Your task to perform on an android device: turn smart compose on in the gmail app Image 0: 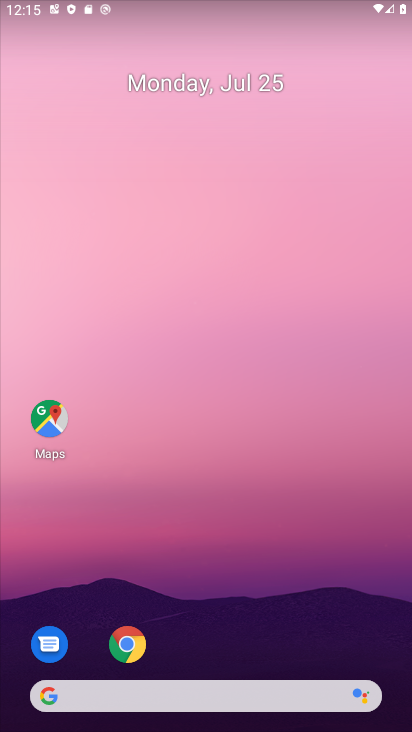
Step 0: drag from (310, 602) to (99, 13)
Your task to perform on an android device: turn smart compose on in the gmail app Image 1: 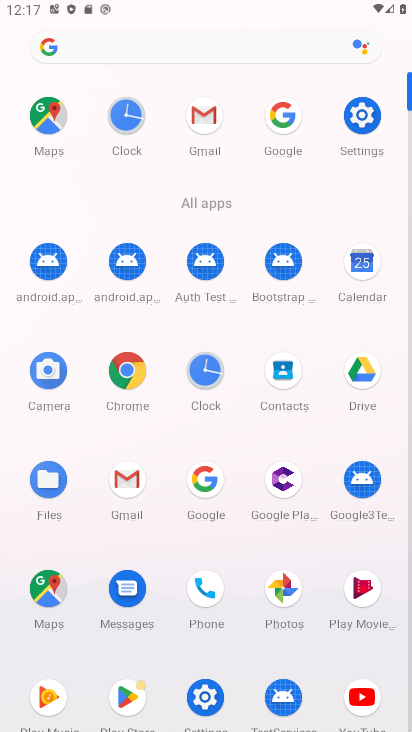
Step 1: click (127, 486)
Your task to perform on an android device: turn smart compose on in the gmail app Image 2: 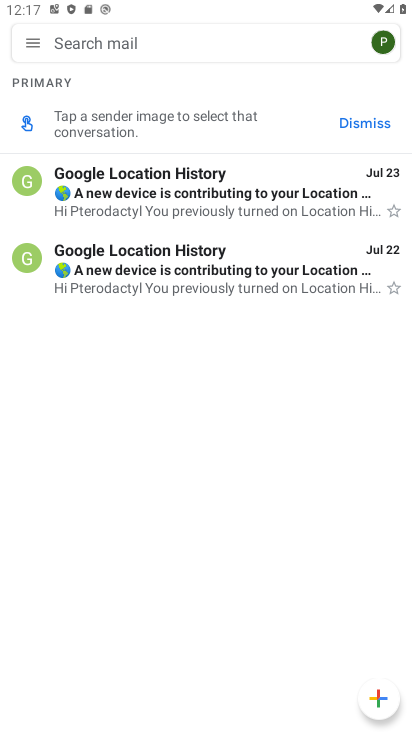
Step 2: click (19, 50)
Your task to perform on an android device: turn smart compose on in the gmail app Image 3: 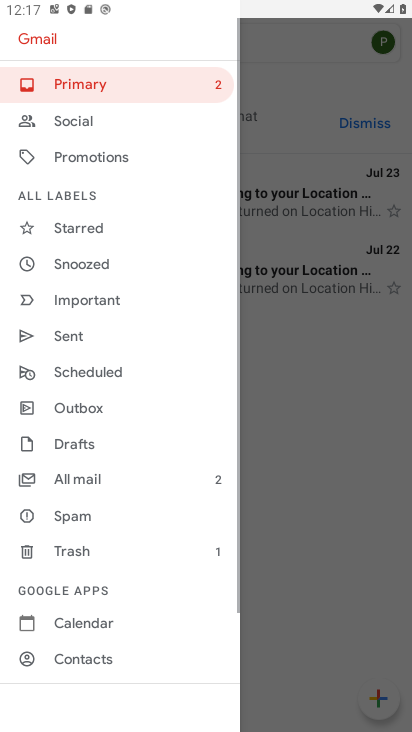
Step 3: drag from (94, 637) to (58, 142)
Your task to perform on an android device: turn smart compose on in the gmail app Image 4: 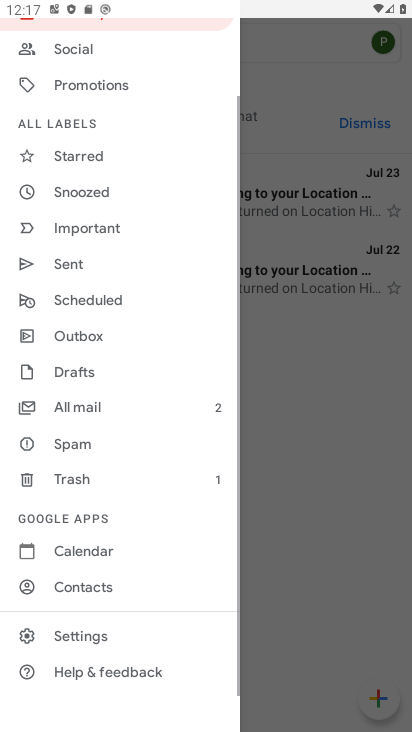
Step 4: click (88, 635)
Your task to perform on an android device: turn smart compose on in the gmail app Image 5: 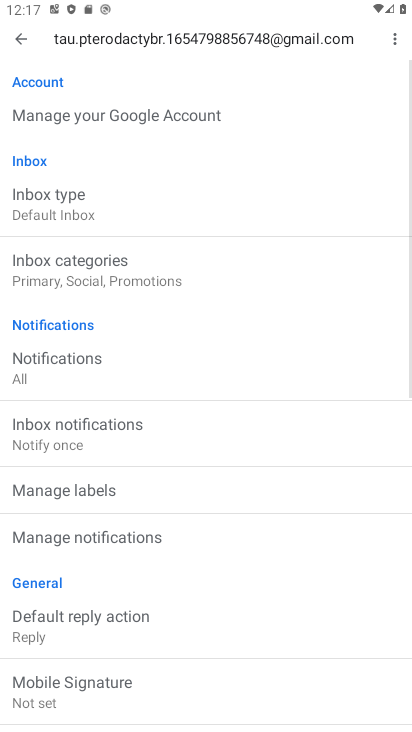
Step 5: task complete